Your task to perform on an android device: Play the latest video from the Huffington Post Image 0: 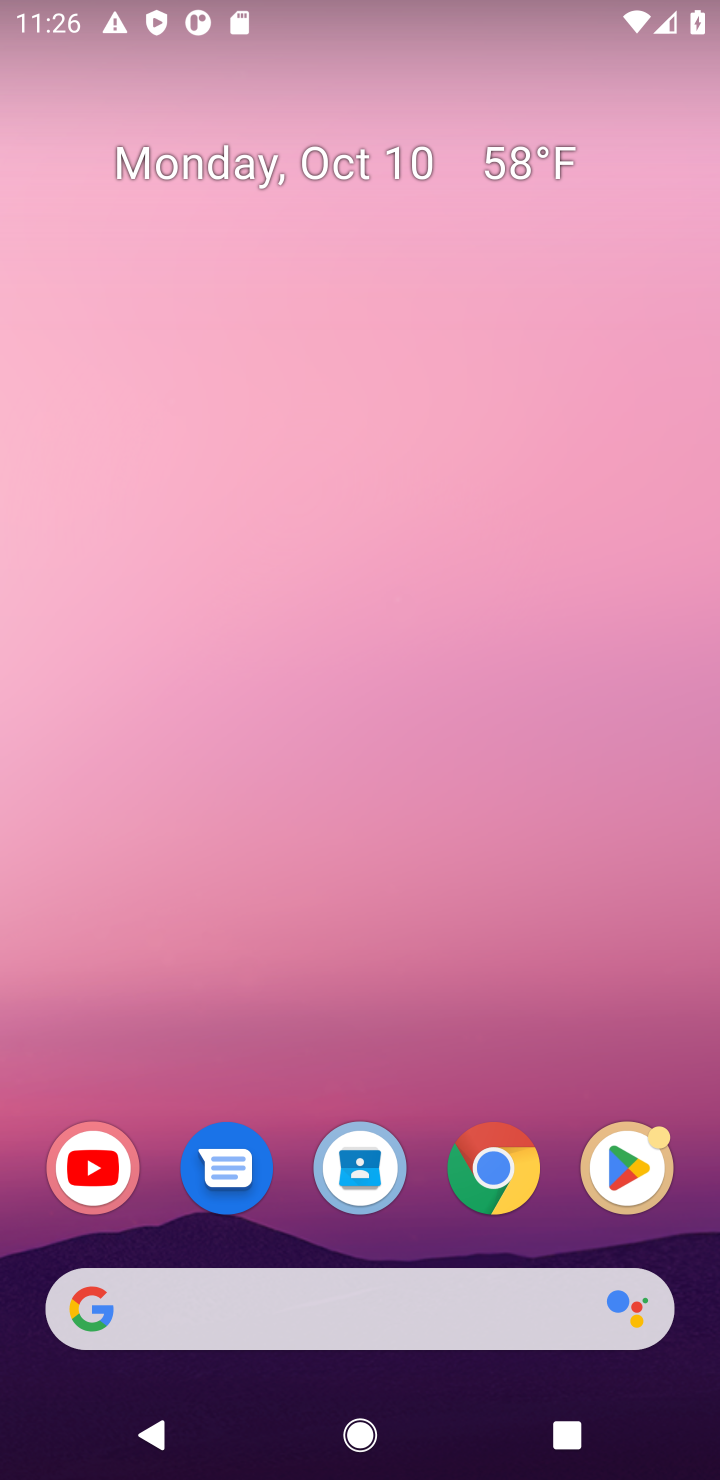
Step 0: click (257, 1297)
Your task to perform on an android device: Play the latest video from the Huffington Post Image 1: 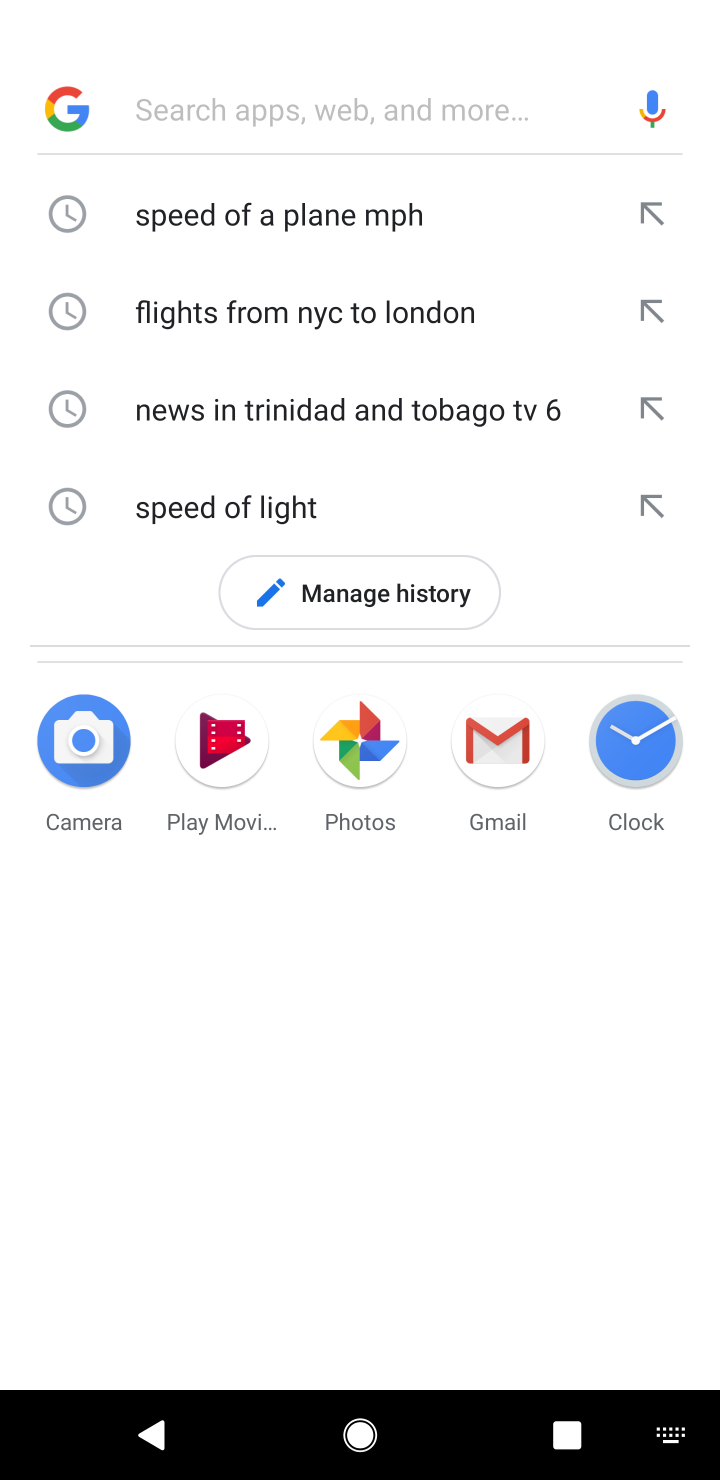
Step 1: press home button
Your task to perform on an android device: Play the latest video from the Huffington Post Image 2: 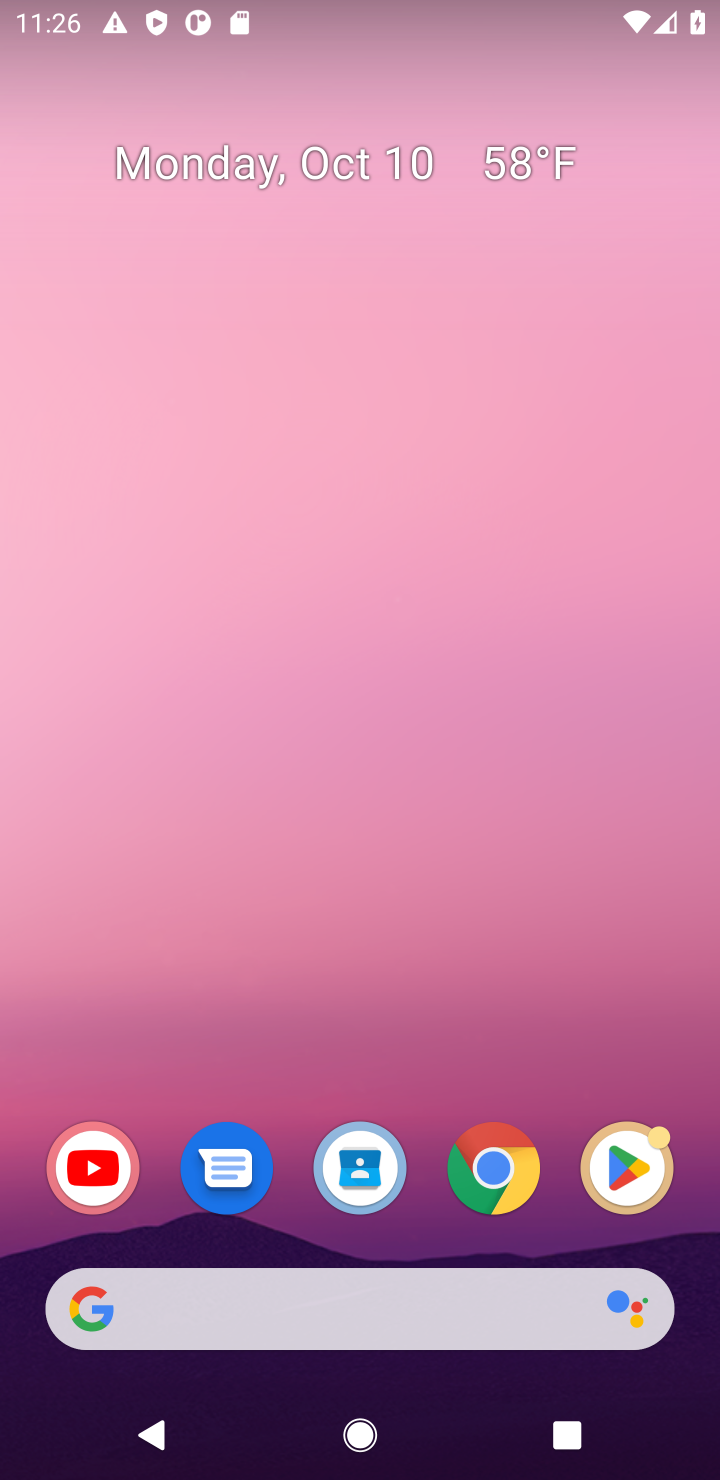
Step 2: click (109, 1172)
Your task to perform on an android device: Play the latest video from the Huffington Post Image 3: 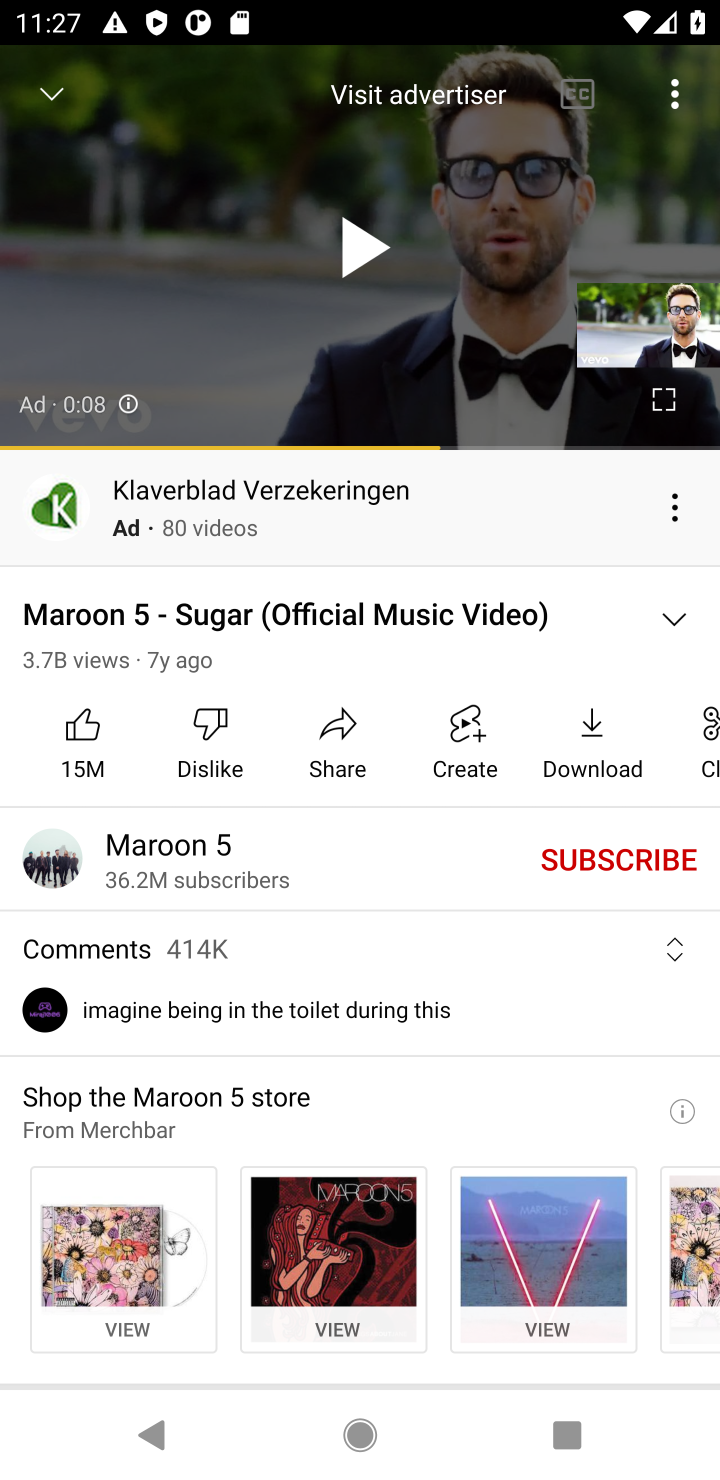
Step 3: drag from (285, 607) to (457, 1290)
Your task to perform on an android device: Play the latest video from the Huffington Post Image 4: 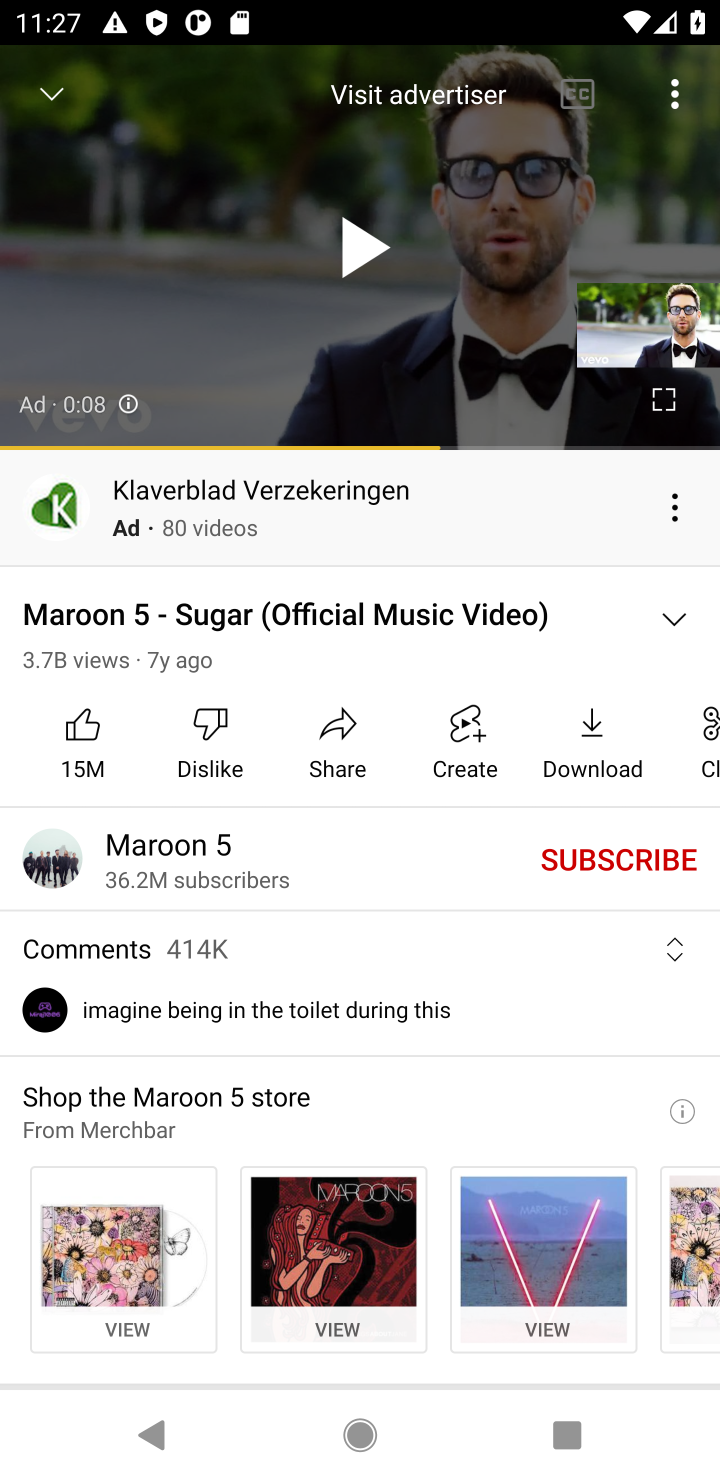
Step 4: drag from (283, 371) to (359, 971)
Your task to perform on an android device: Play the latest video from the Huffington Post Image 5: 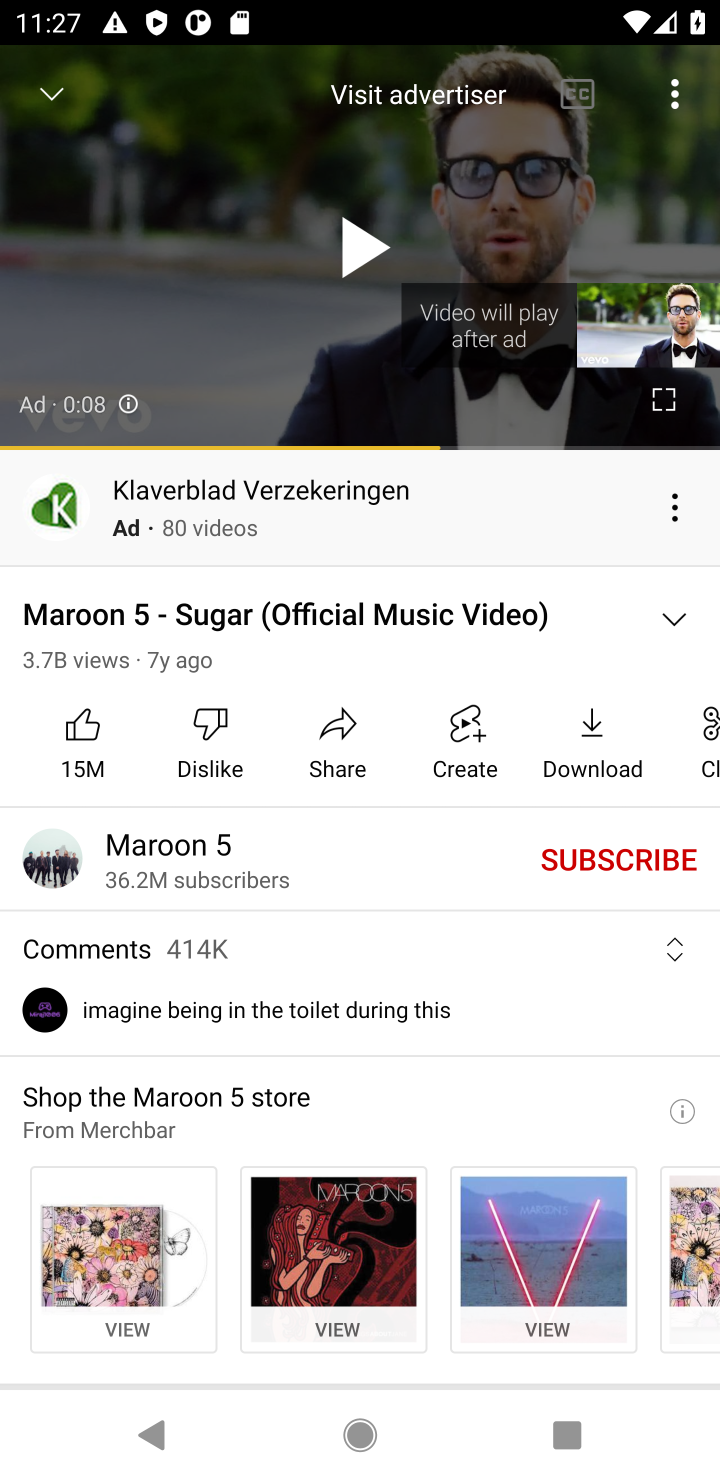
Step 5: drag from (307, 237) to (354, 849)
Your task to perform on an android device: Play the latest video from the Huffington Post Image 6: 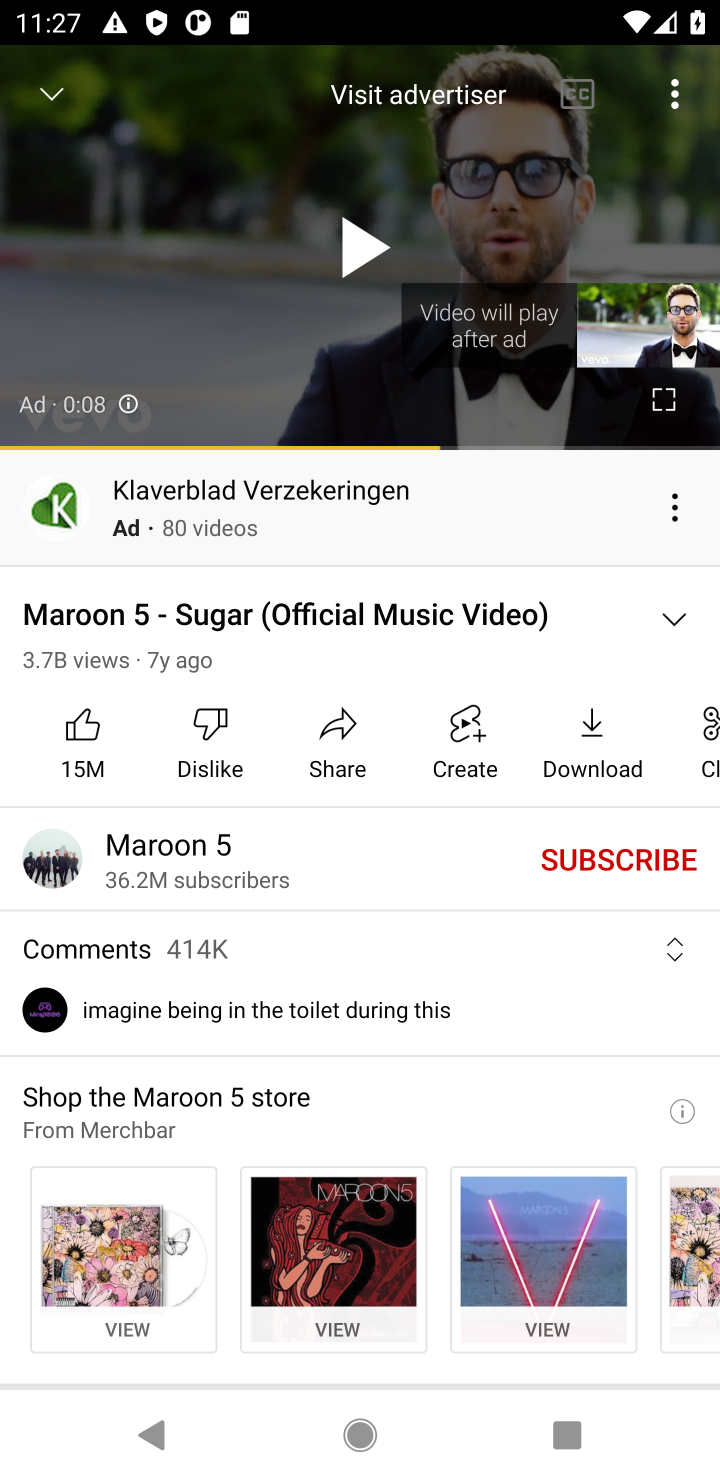
Step 6: drag from (156, 360) to (245, 1117)
Your task to perform on an android device: Play the latest video from the Huffington Post Image 7: 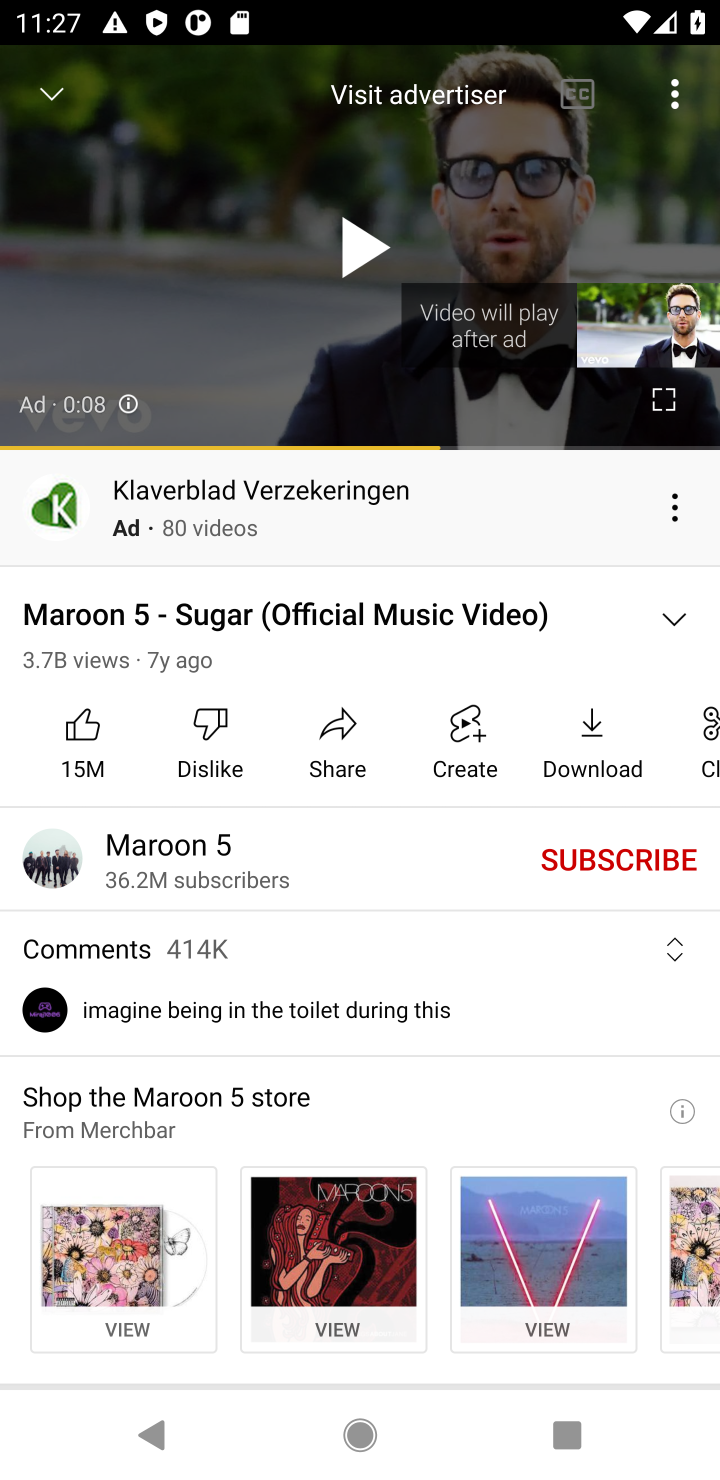
Step 7: drag from (302, 403) to (297, 1404)
Your task to perform on an android device: Play the latest video from the Huffington Post Image 8: 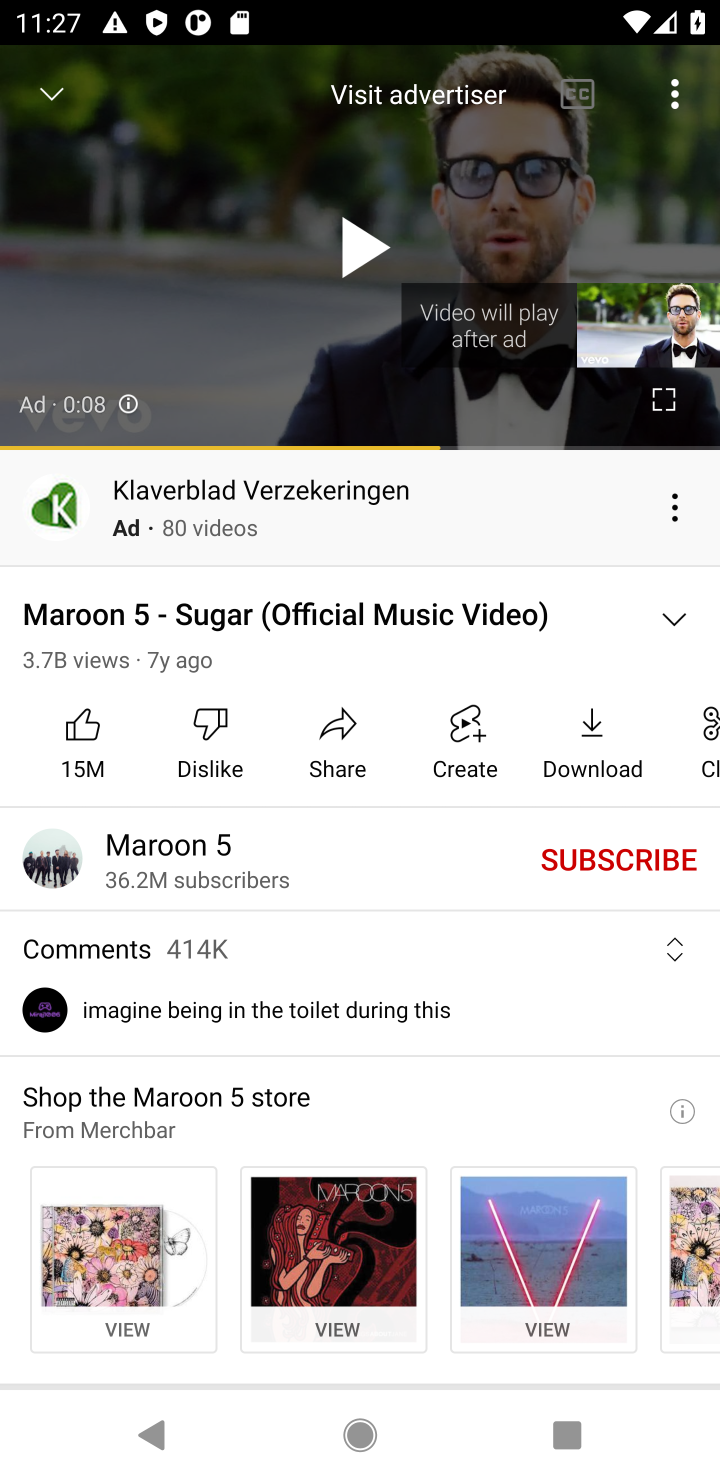
Step 8: drag from (276, 295) to (369, 1297)
Your task to perform on an android device: Play the latest video from the Huffington Post Image 9: 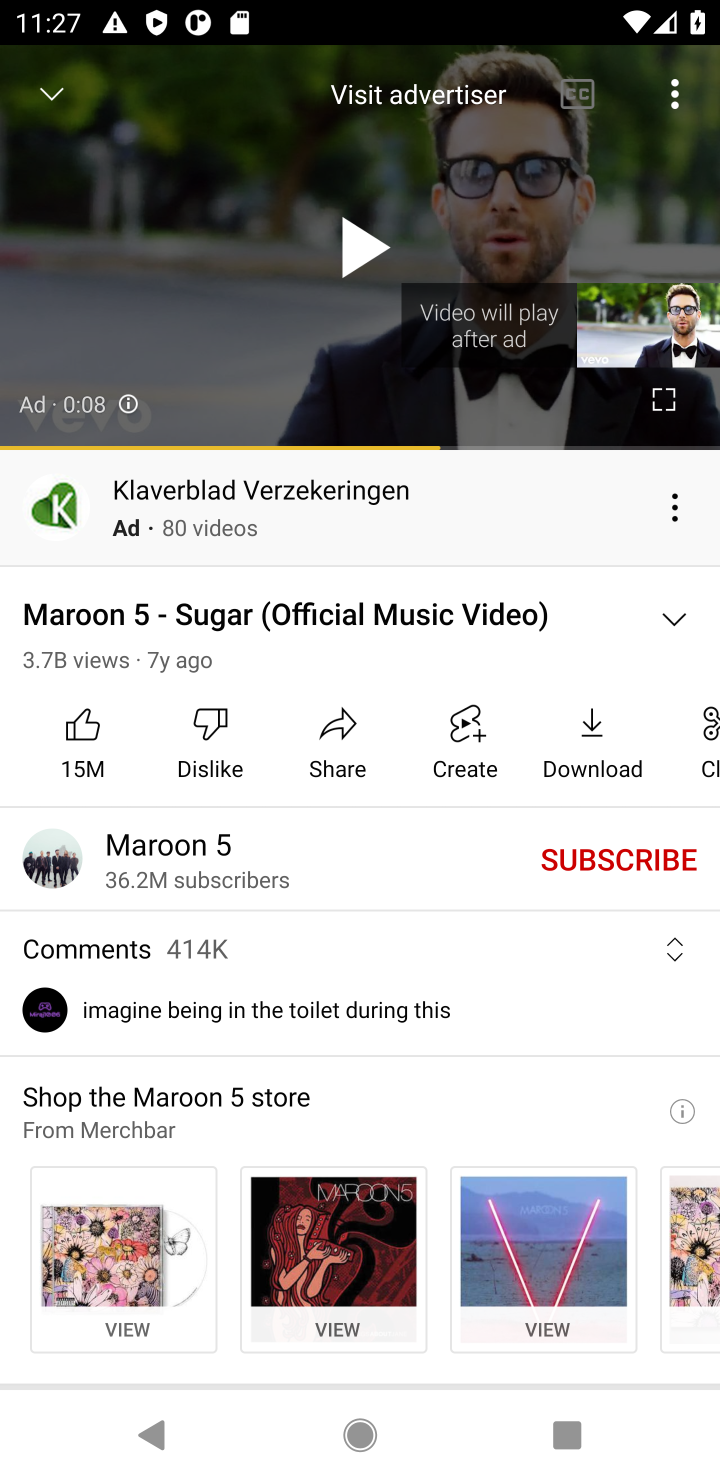
Step 9: drag from (279, 497) to (315, 1290)
Your task to perform on an android device: Play the latest video from the Huffington Post Image 10: 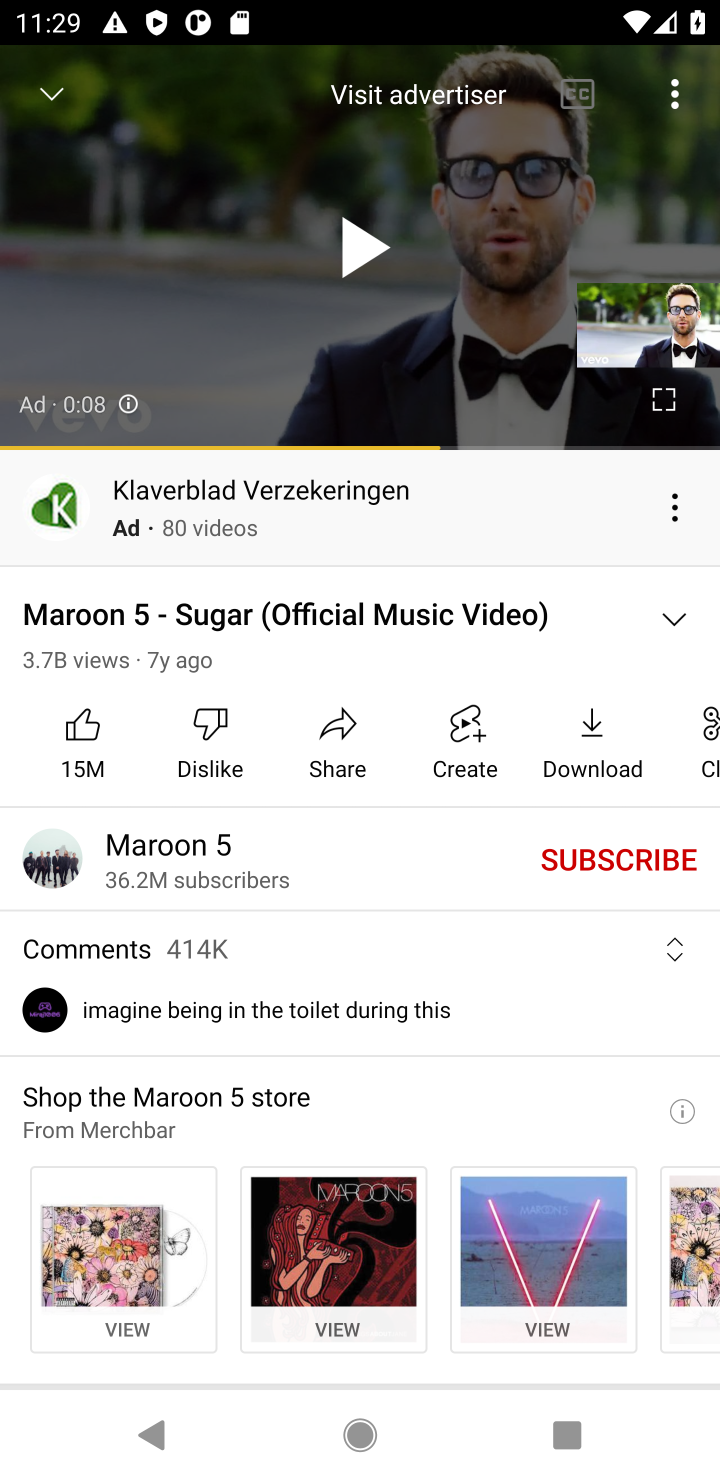
Step 10: drag from (288, 243) to (242, 1101)
Your task to perform on an android device: Play the latest video from the Huffington Post Image 11: 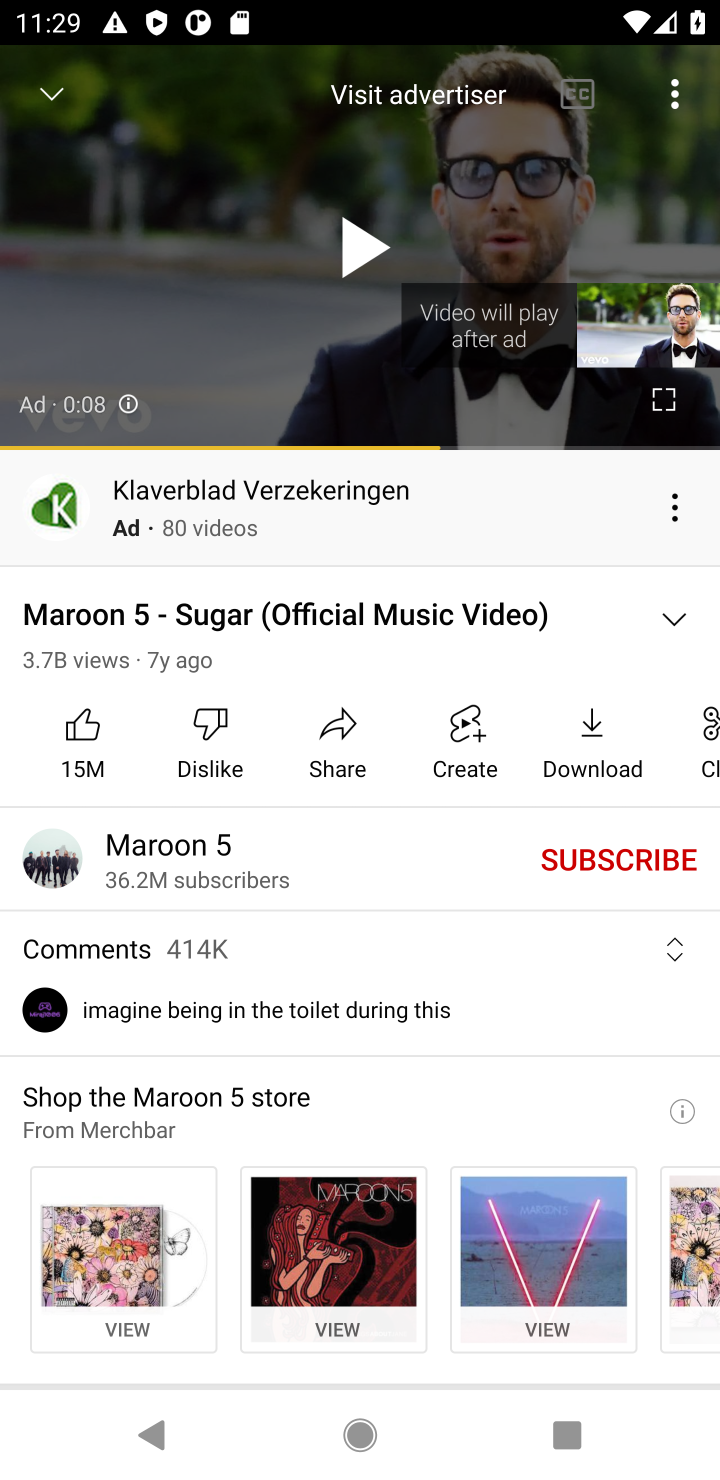
Step 11: drag from (231, 601) to (275, 1044)
Your task to perform on an android device: Play the latest video from the Huffington Post Image 12: 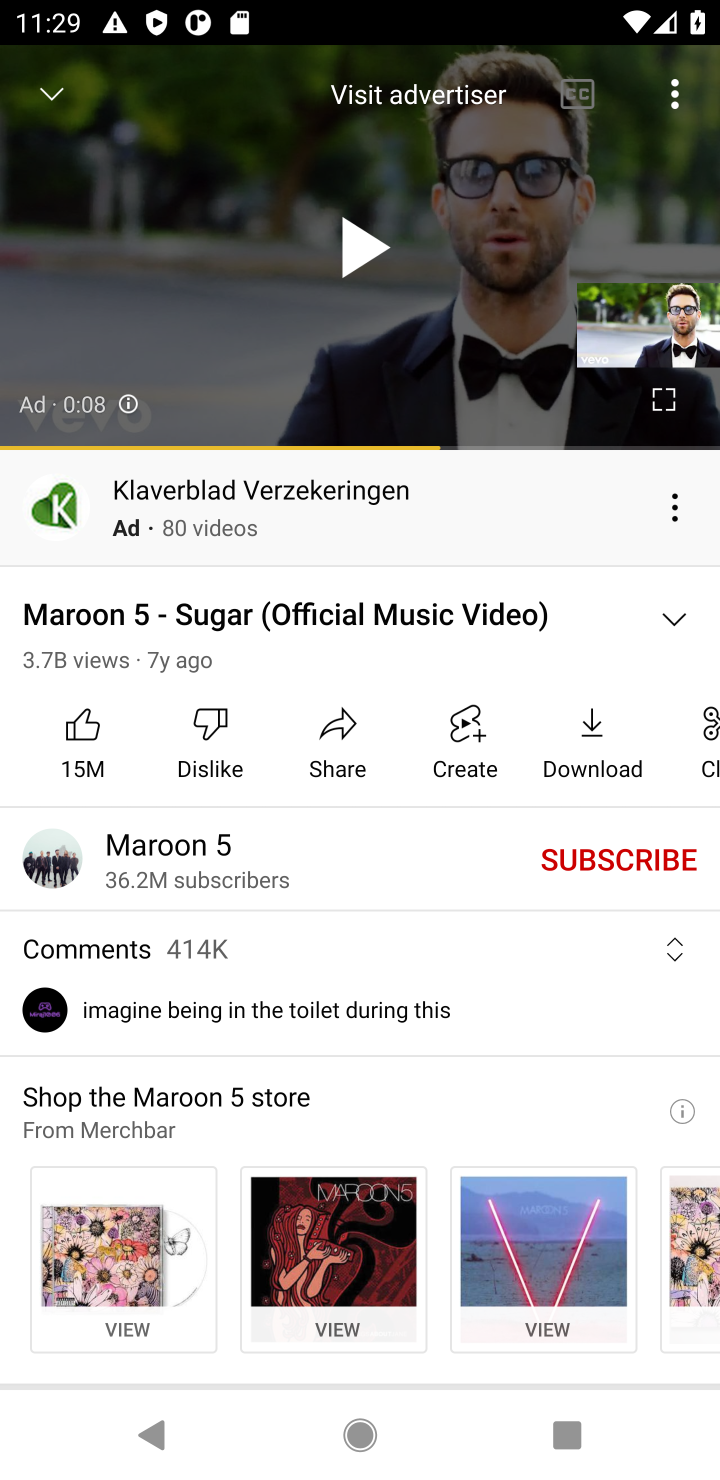
Step 12: drag from (298, 419) to (446, 1059)
Your task to perform on an android device: Play the latest video from the Huffington Post Image 13: 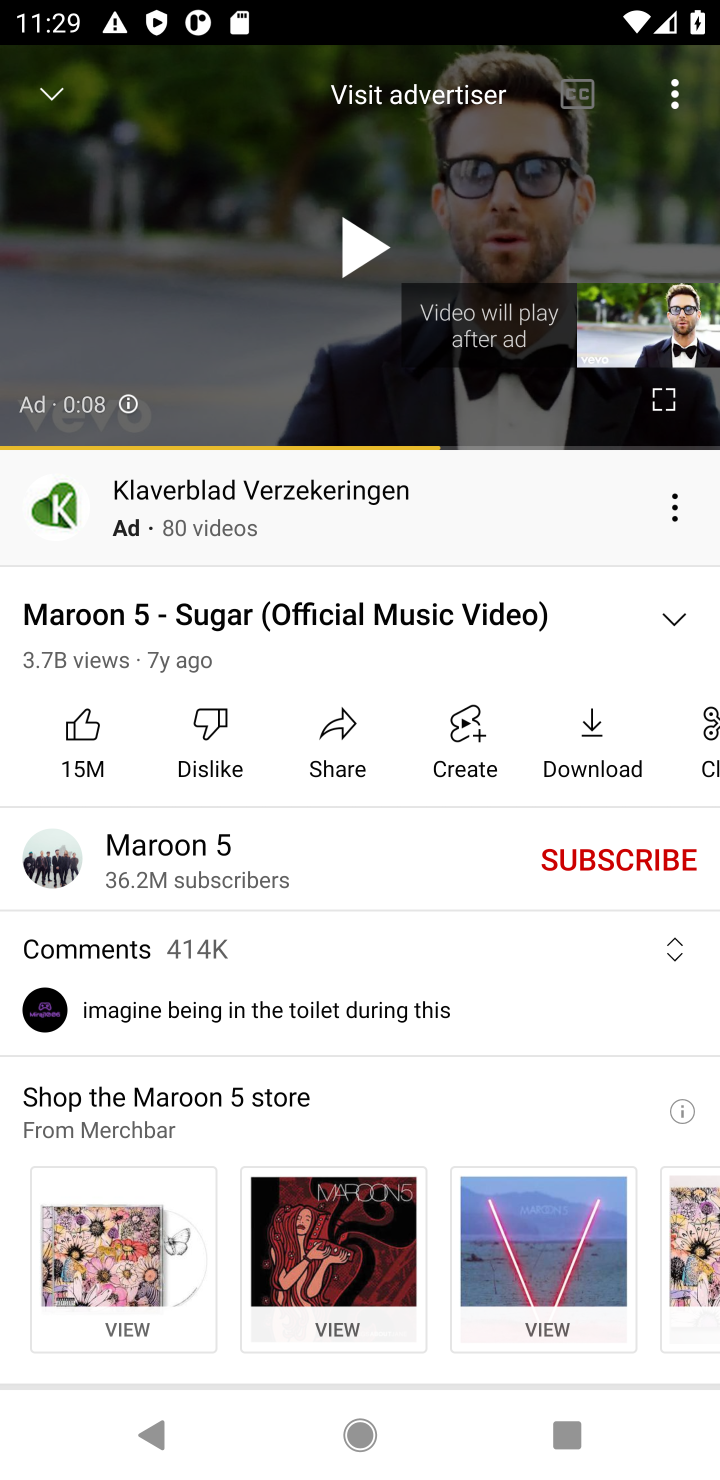
Step 13: drag from (225, 285) to (385, 1046)
Your task to perform on an android device: Play the latest video from the Huffington Post Image 14: 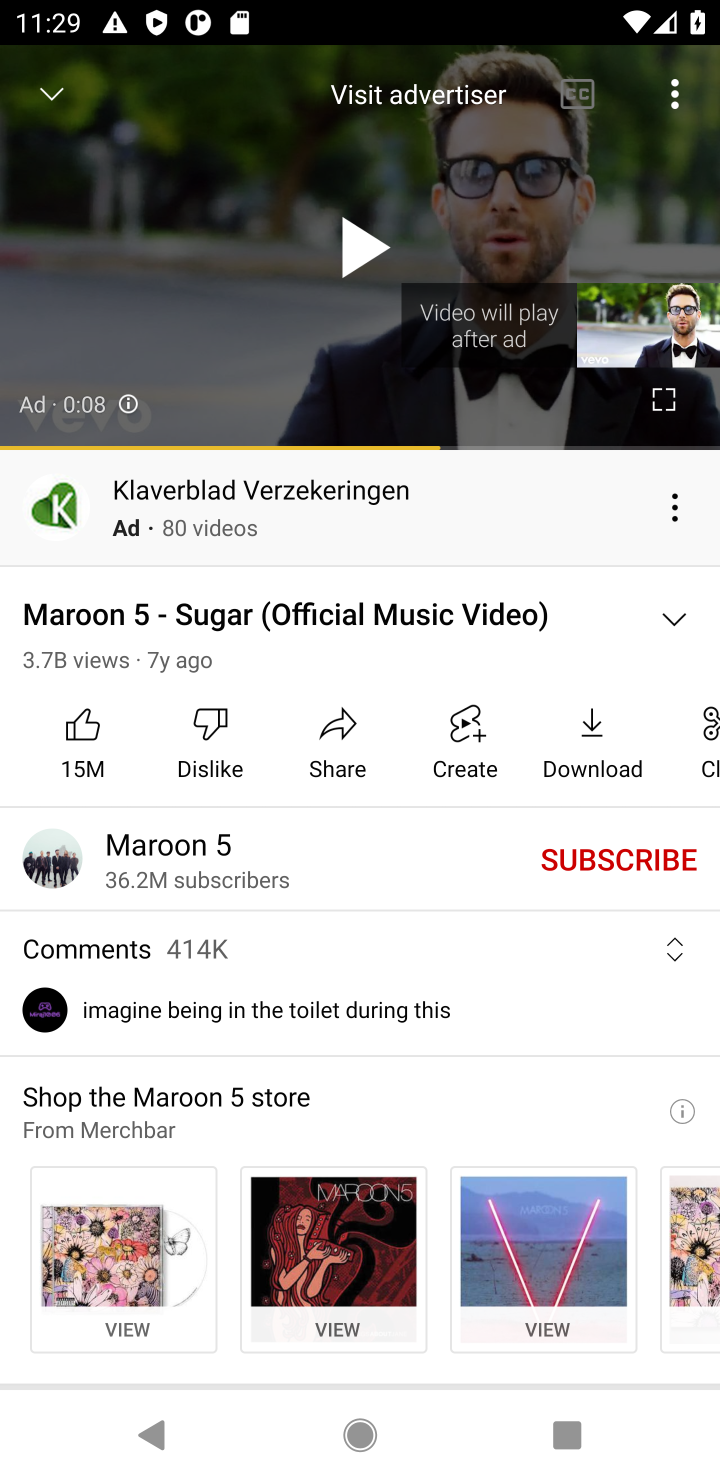
Step 14: drag from (247, 461) to (384, 1142)
Your task to perform on an android device: Play the latest video from the Huffington Post Image 15: 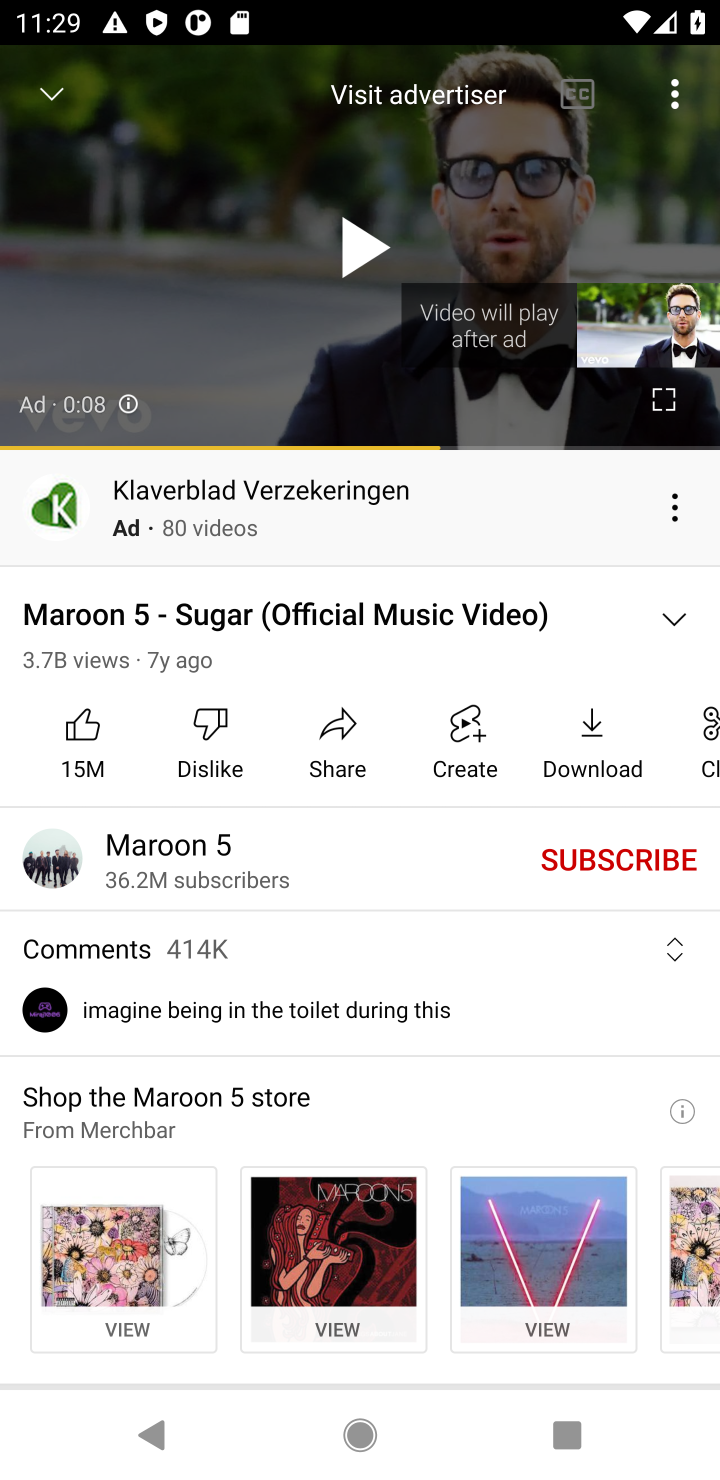
Step 15: press back button
Your task to perform on an android device: Play the latest video from the Huffington Post Image 16: 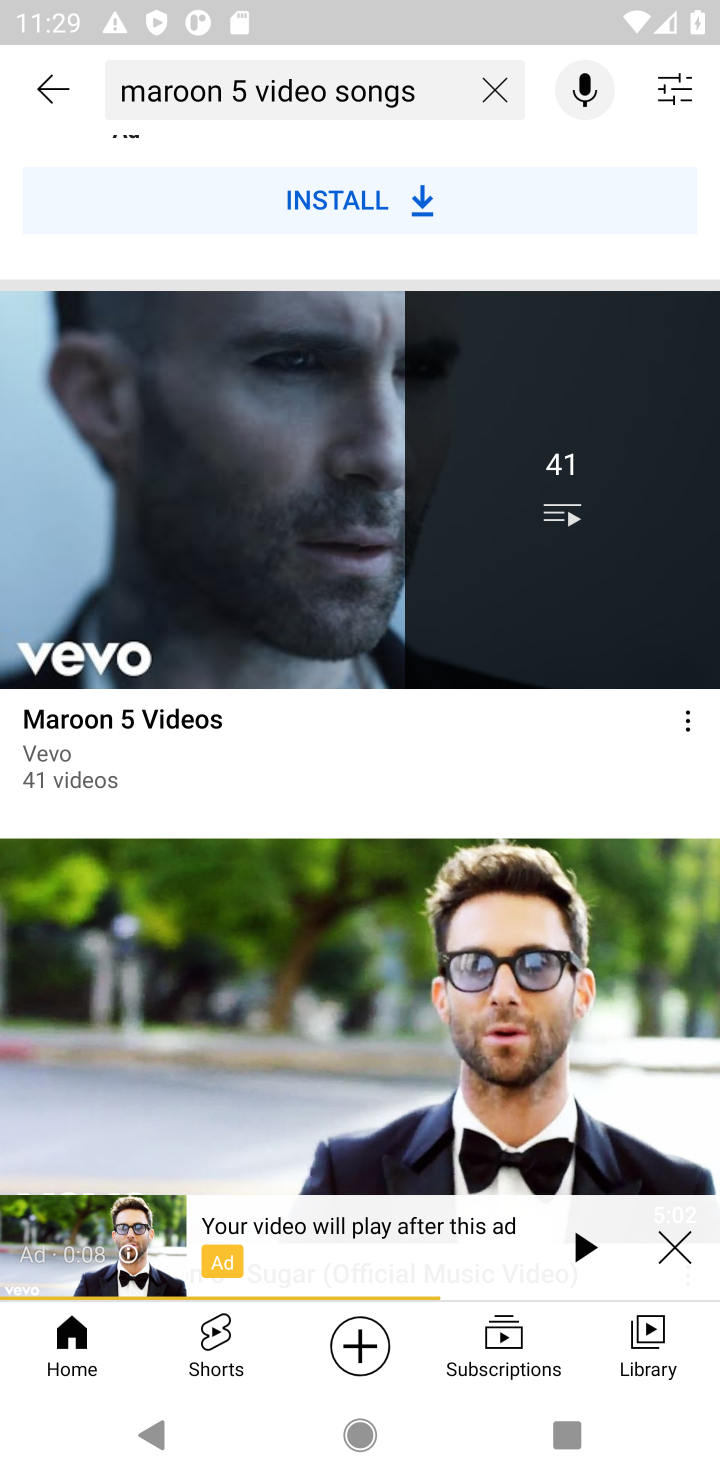
Step 16: click (485, 75)
Your task to perform on an android device: Play the latest video from the Huffington Post Image 17: 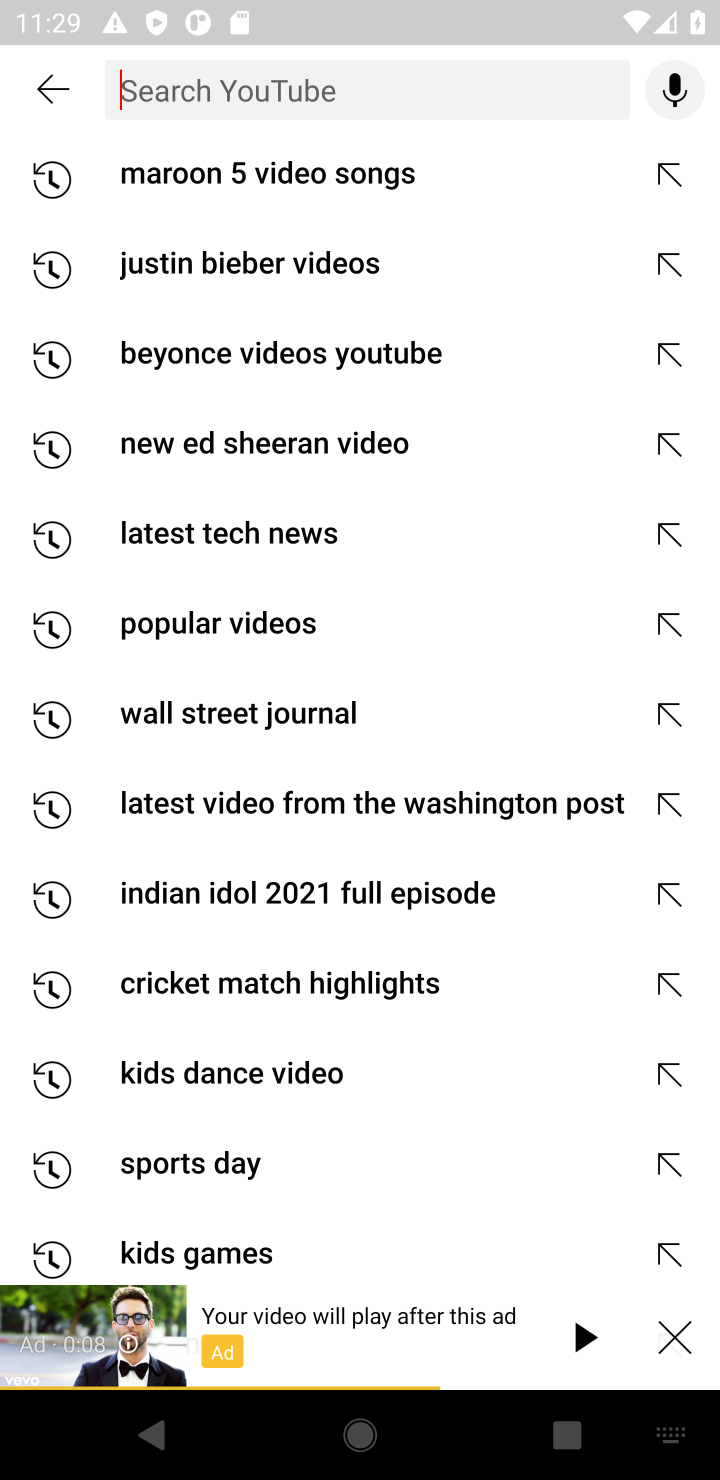
Step 17: type "Huffington Post"
Your task to perform on an android device: Play the latest video from the Huffington Post Image 18: 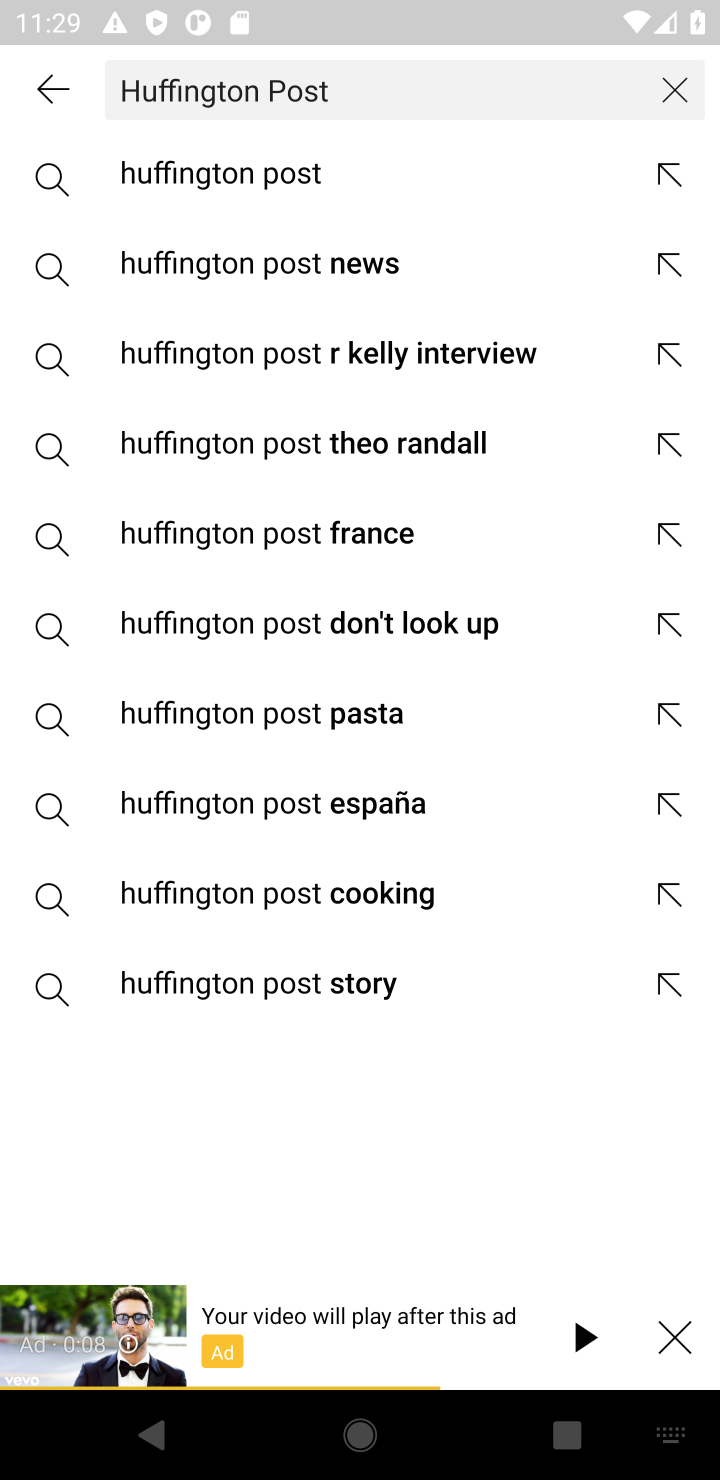
Step 18: click (215, 178)
Your task to perform on an android device: Play the latest video from the Huffington Post Image 19: 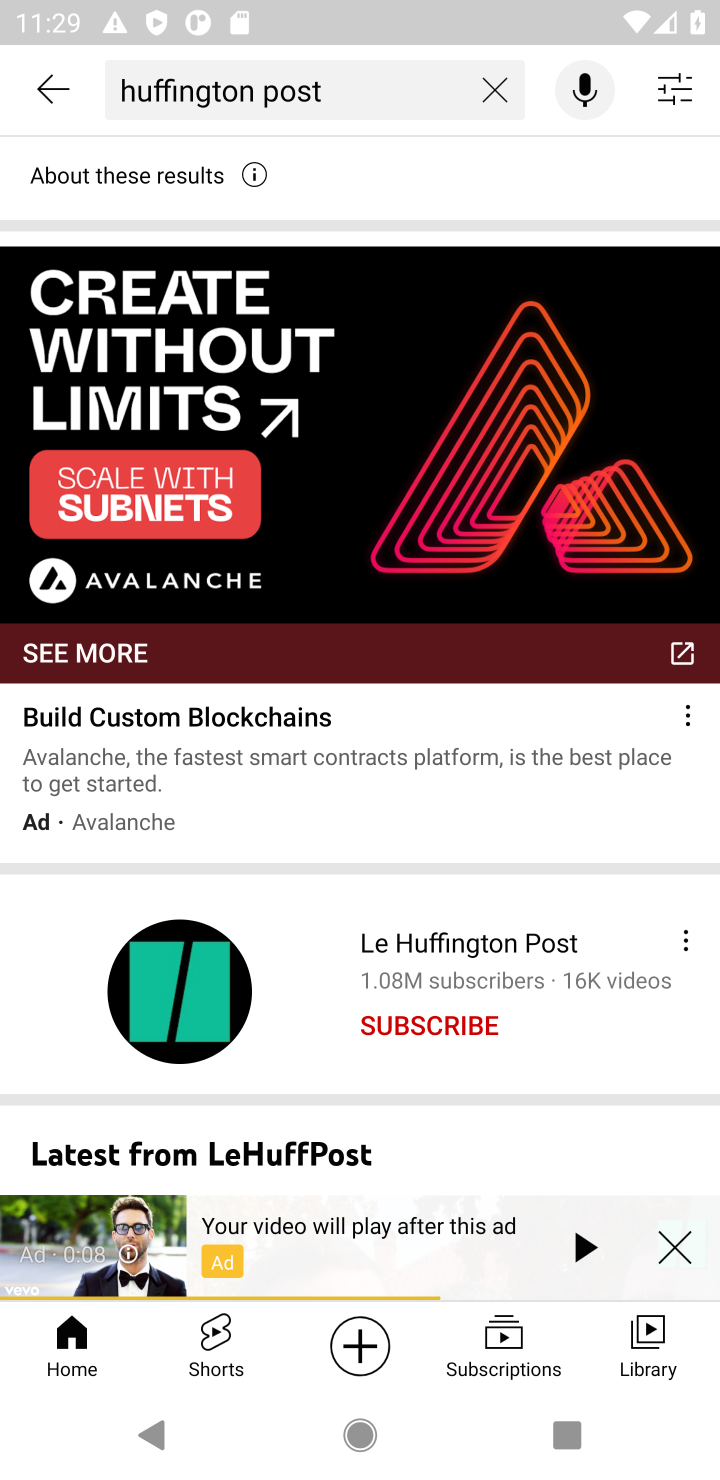
Step 19: drag from (540, 1034) to (580, 300)
Your task to perform on an android device: Play the latest video from the Huffington Post Image 20: 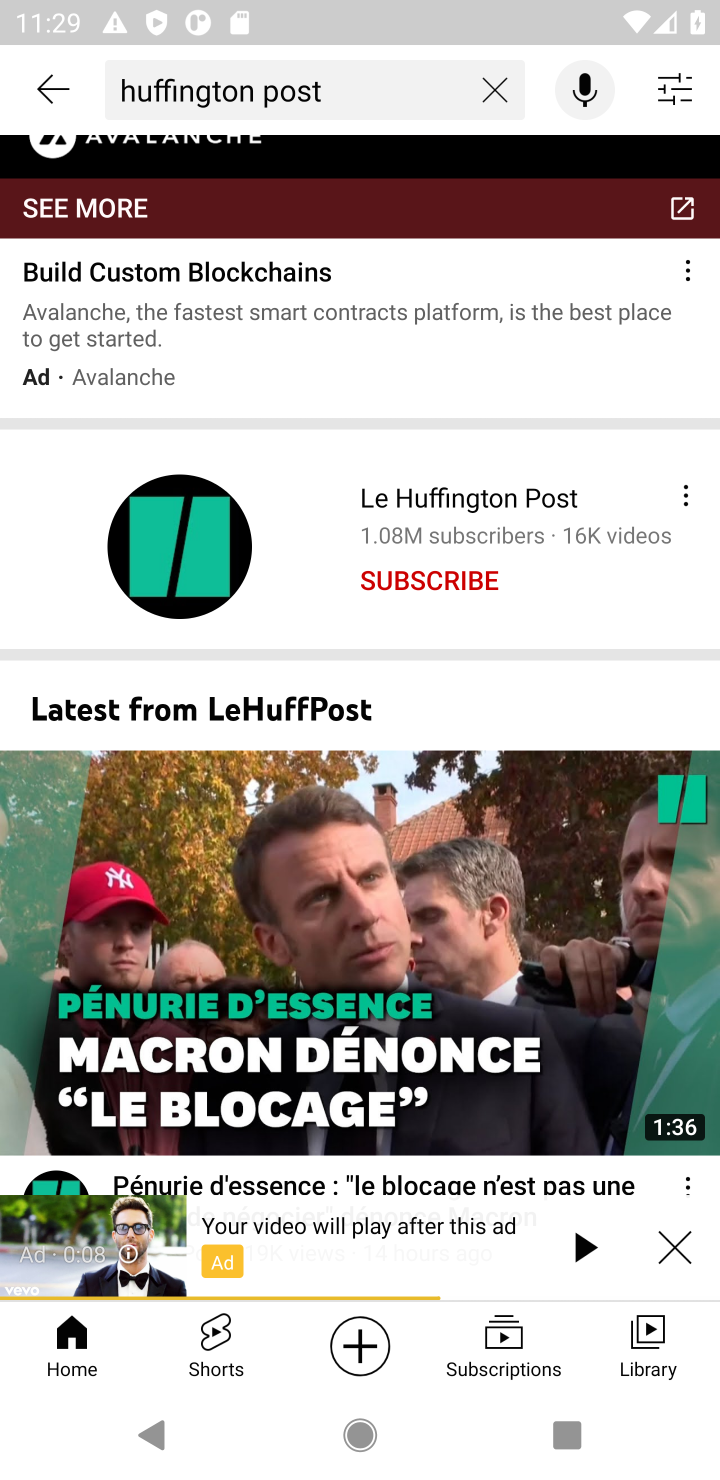
Step 20: drag from (478, 909) to (510, 396)
Your task to perform on an android device: Play the latest video from the Huffington Post Image 21: 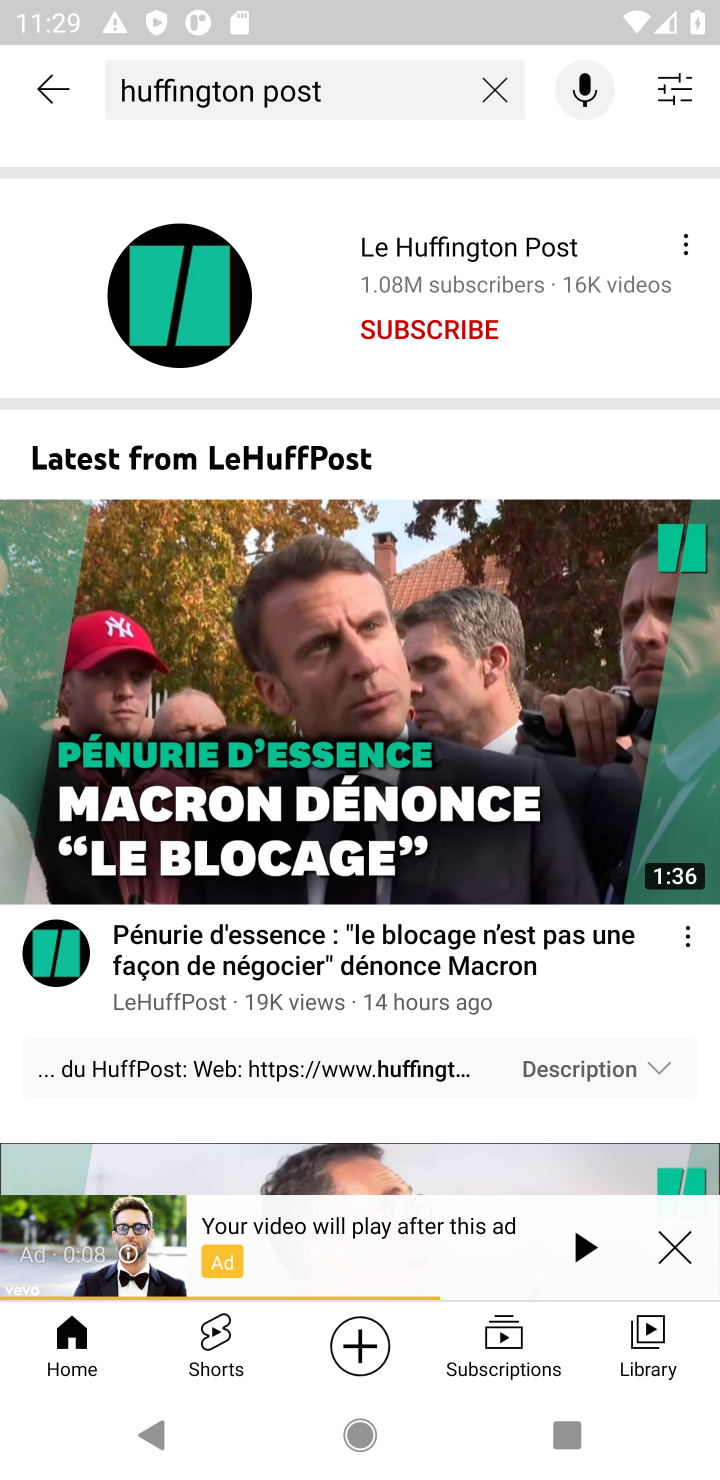
Step 21: click (411, 777)
Your task to perform on an android device: Play the latest video from the Huffington Post Image 22: 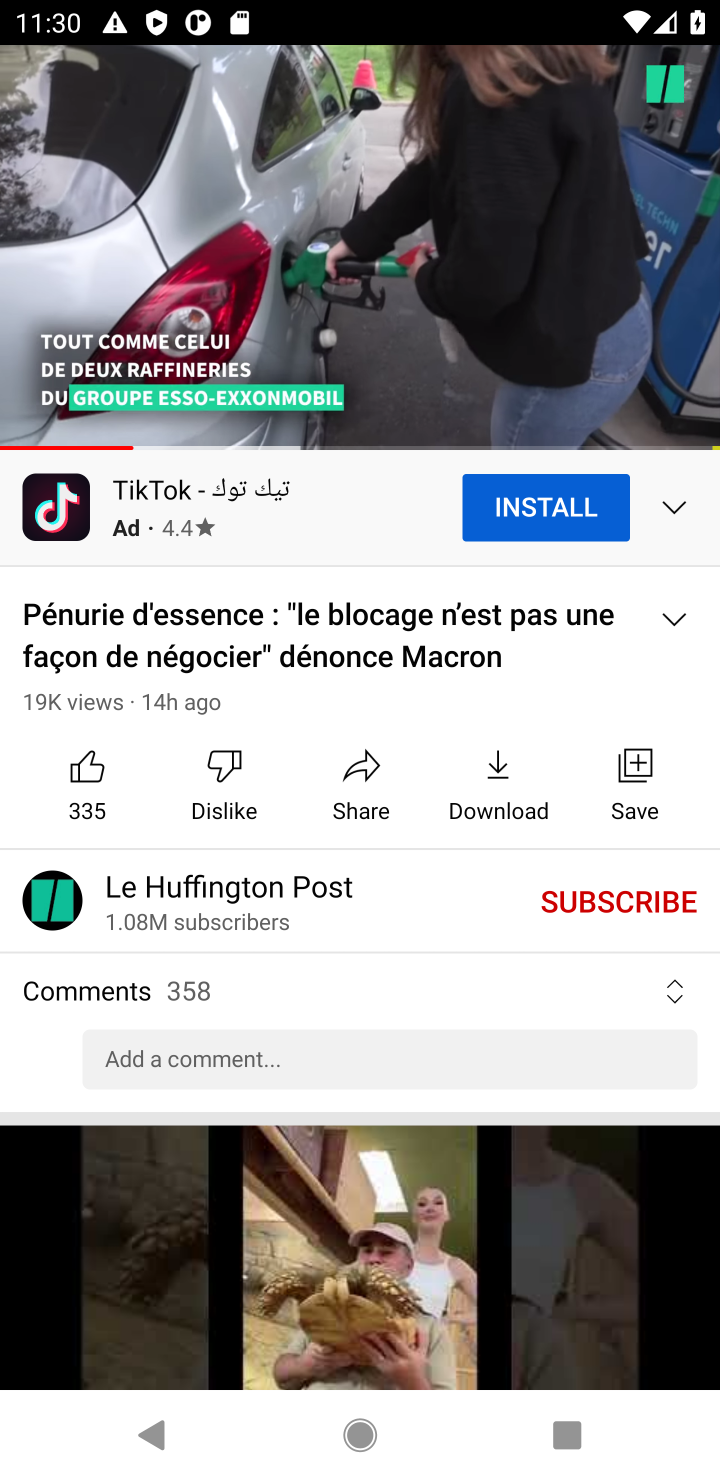
Step 22: click (247, 263)
Your task to perform on an android device: Play the latest video from the Huffington Post Image 23: 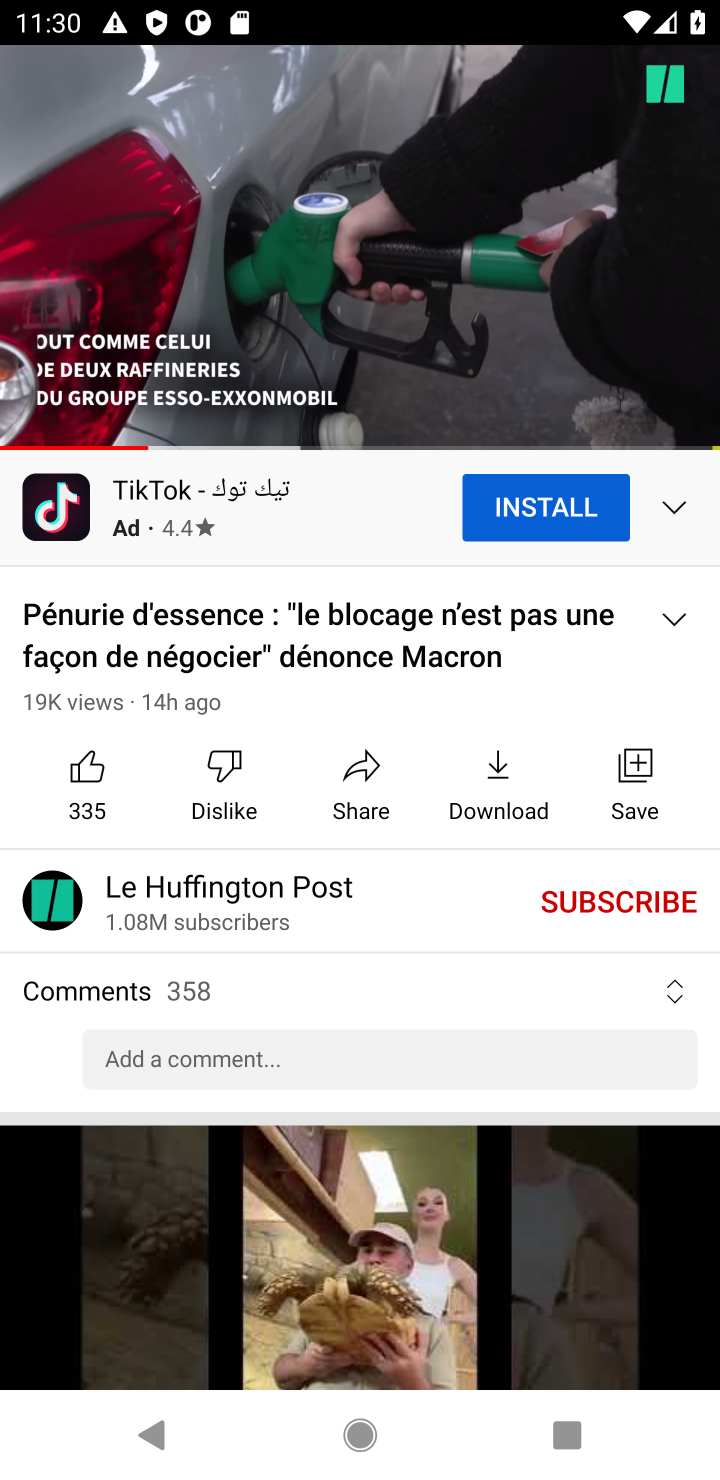
Step 23: click (371, 258)
Your task to perform on an android device: Play the latest video from the Huffington Post Image 24: 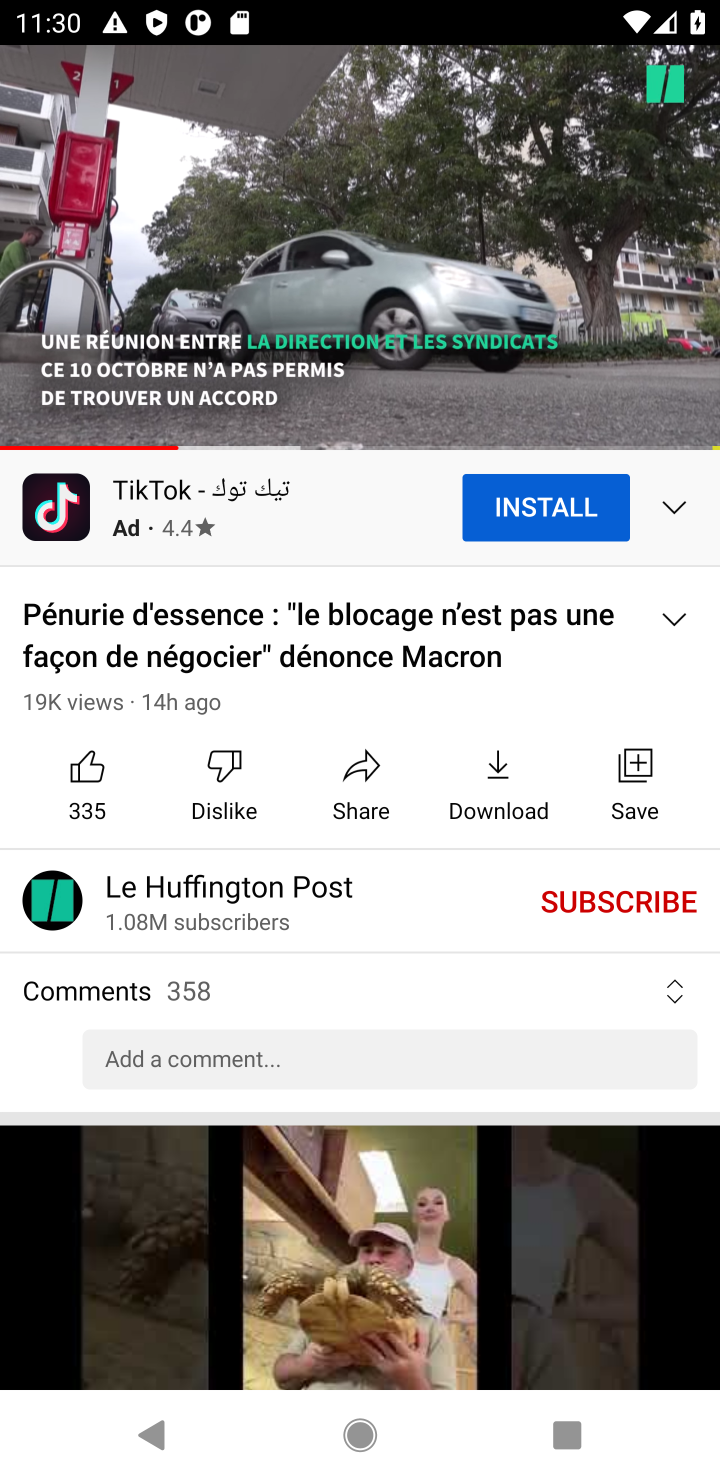
Step 24: click (371, 258)
Your task to perform on an android device: Play the latest video from the Huffington Post Image 25: 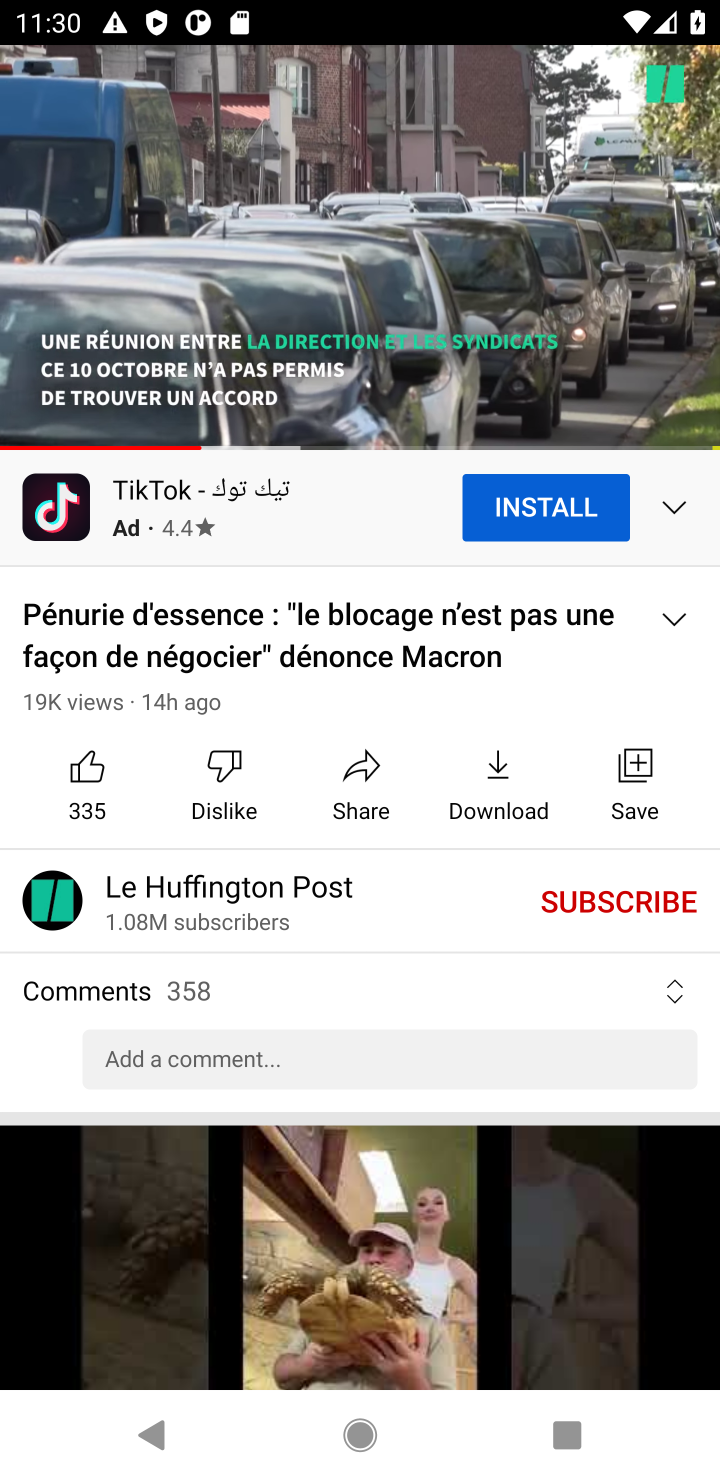
Step 25: click (371, 253)
Your task to perform on an android device: Play the latest video from the Huffington Post Image 26: 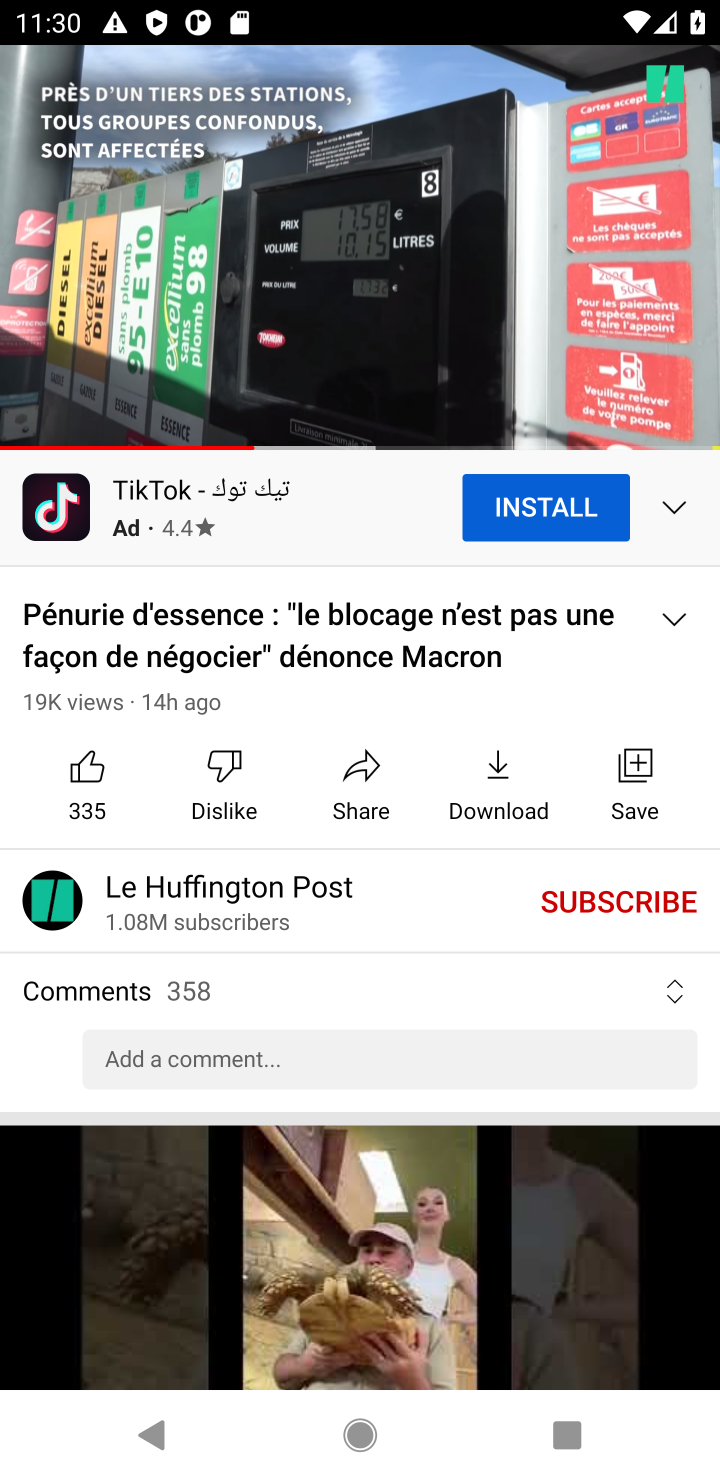
Step 26: click (369, 256)
Your task to perform on an android device: Play the latest video from the Huffington Post Image 27: 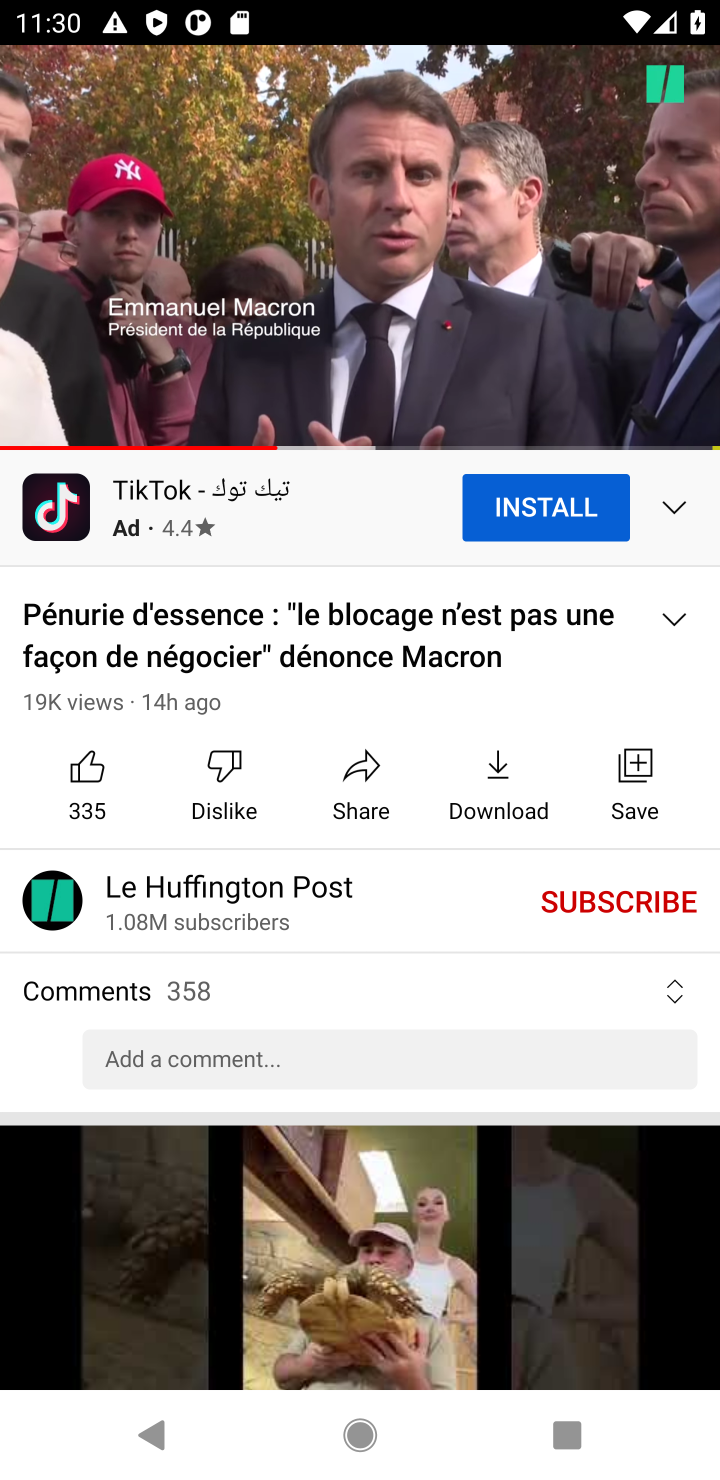
Step 27: click (357, 244)
Your task to perform on an android device: Play the latest video from the Huffington Post Image 28: 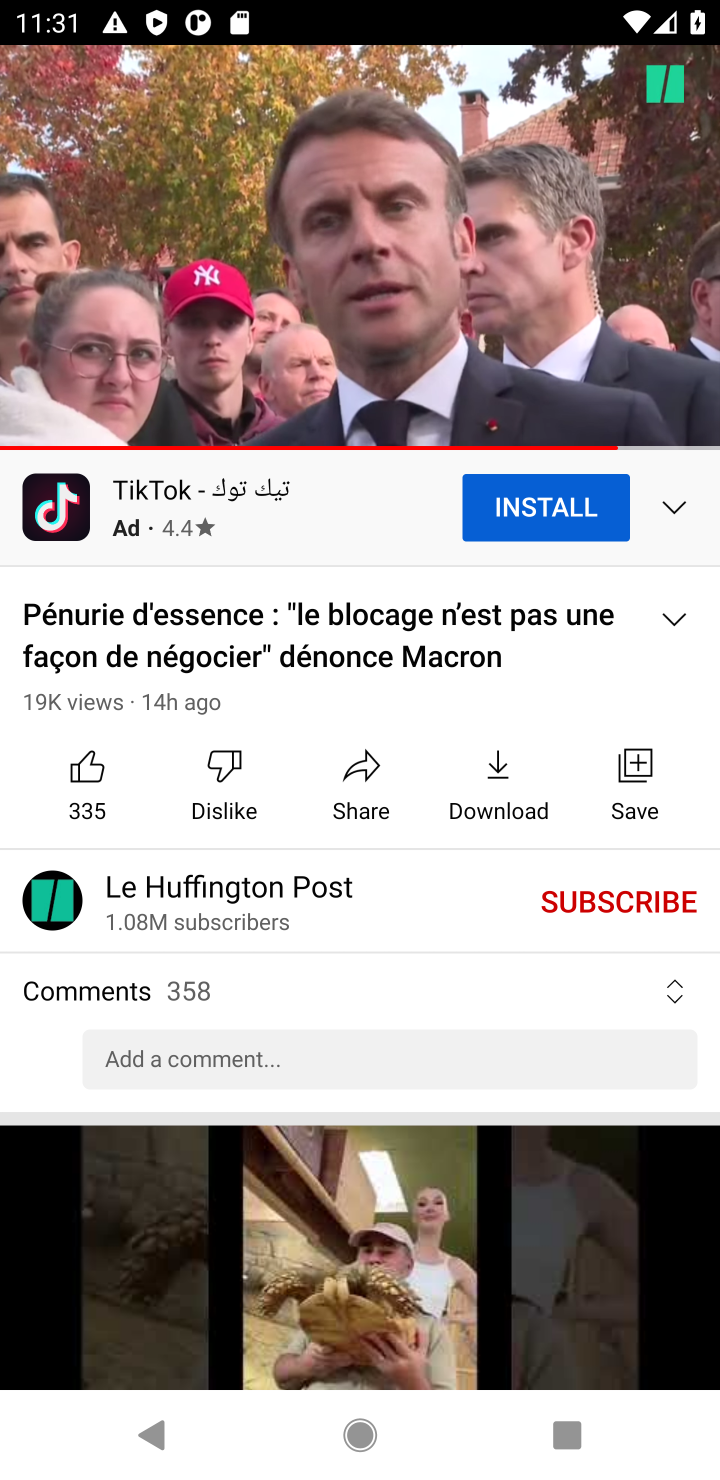
Step 28: click (364, 267)
Your task to perform on an android device: Play the latest video from the Huffington Post Image 29: 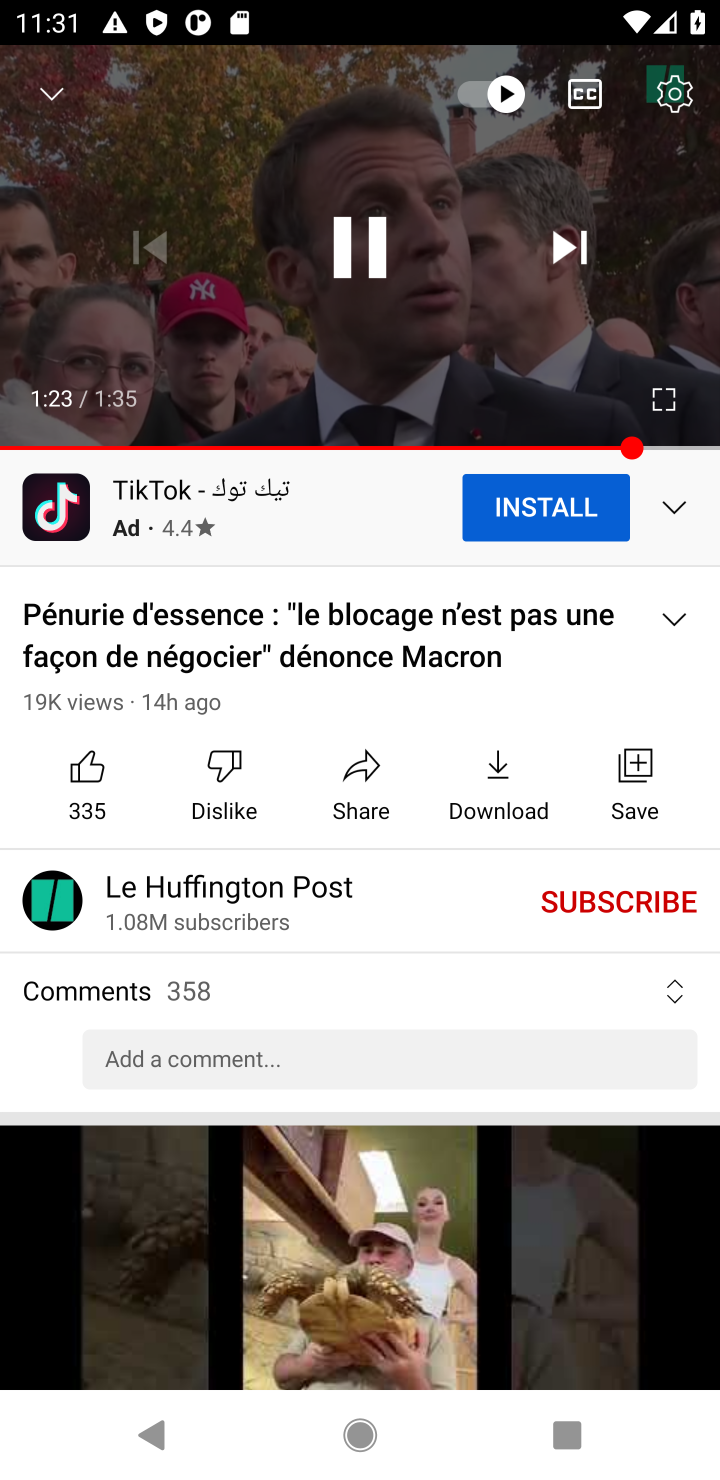
Step 29: click (337, 272)
Your task to perform on an android device: Play the latest video from the Huffington Post Image 30: 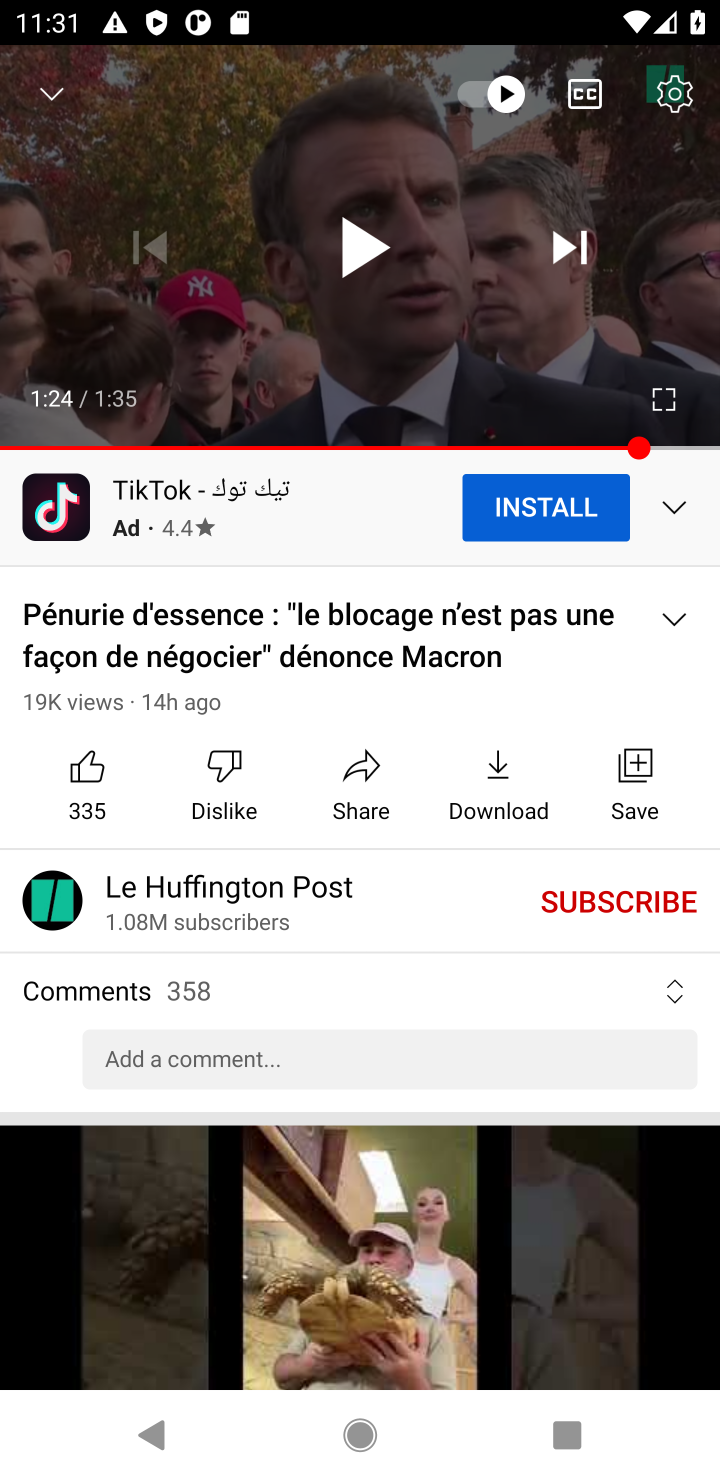
Step 30: task complete